Your task to perform on an android device: toggle airplane mode Image 0: 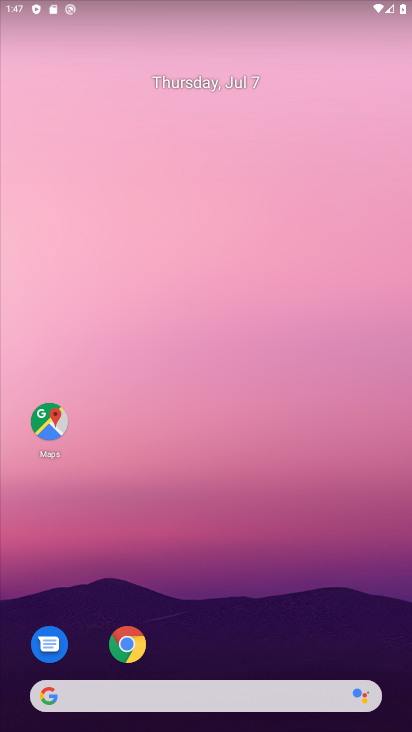
Step 0: drag from (211, 645) to (223, 333)
Your task to perform on an android device: toggle airplane mode Image 1: 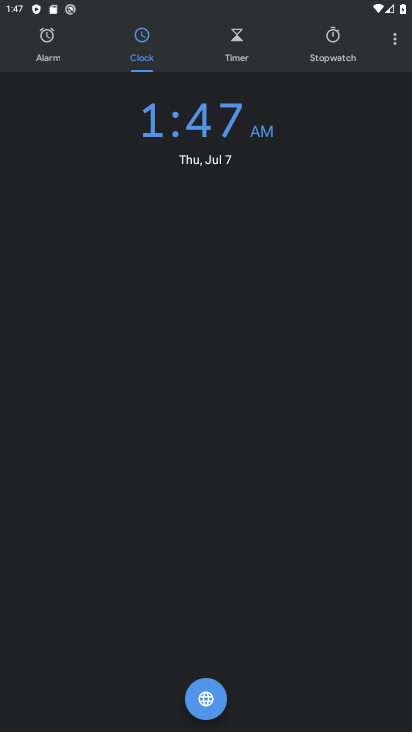
Step 1: press home button
Your task to perform on an android device: toggle airplane mode Image 2: 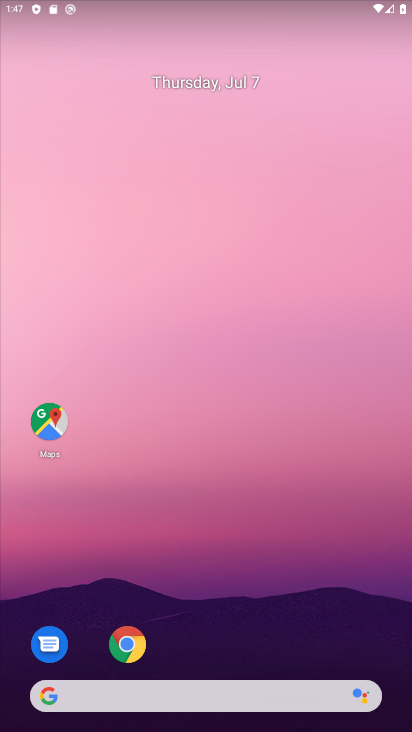
Step 2: drag from (228, 645) to (278, 212)
Your task to perform on an android device: toggle airplane mode Image 3: 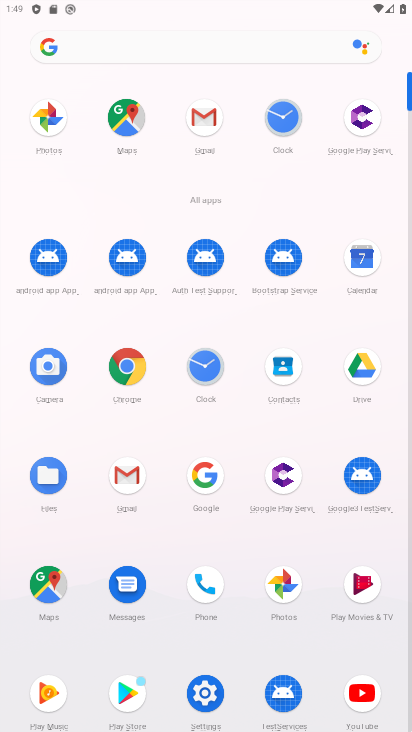
Step 3: click (204, 696)
Your task to perform on an android device: toggle airplane mode Image 4: 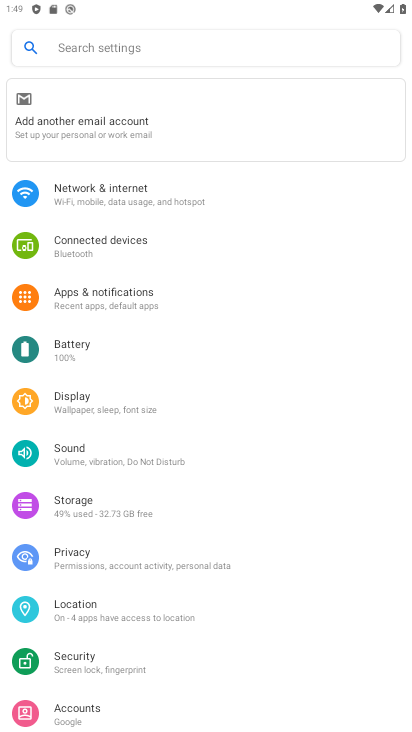
Step 4: click (145, 202)
Your task to perform on an android device: toggle airplane mode Image 5: 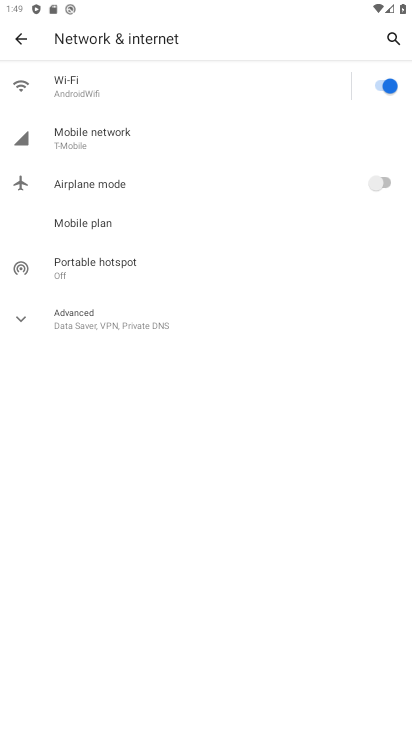
Step 5: click (83, 187)
Your task to perform on an android device: toggle airplane mode Image 6: 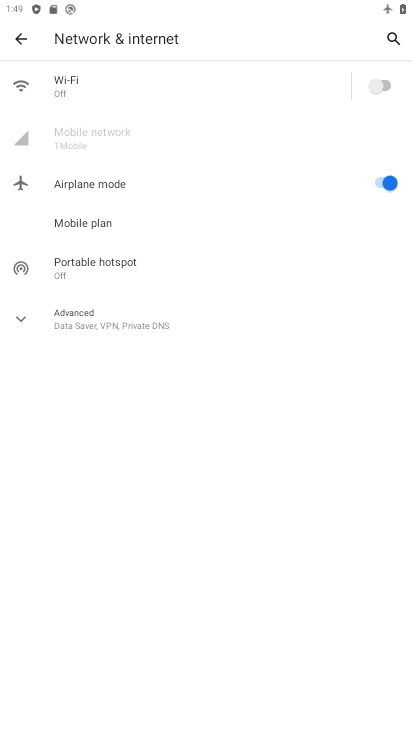
Step 6: task complete